Your task to perform on an android device: turn on improve location accuracy Image 0: 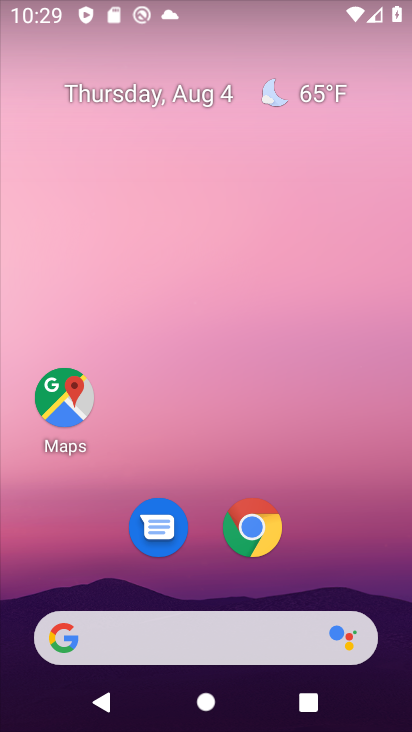
Step 0: click (83, 395)
Your task to perform on an android device: turn on improve location accuracy Image 1: 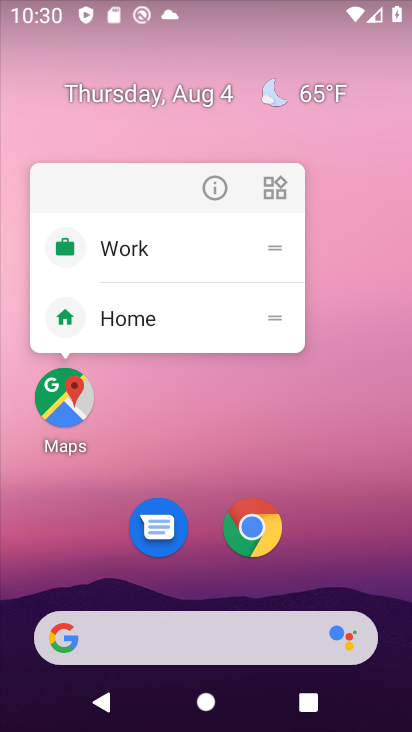
Step 1: click (58, 440)
Your task to perform on an android device: turn on improve location accuracy Image 2: 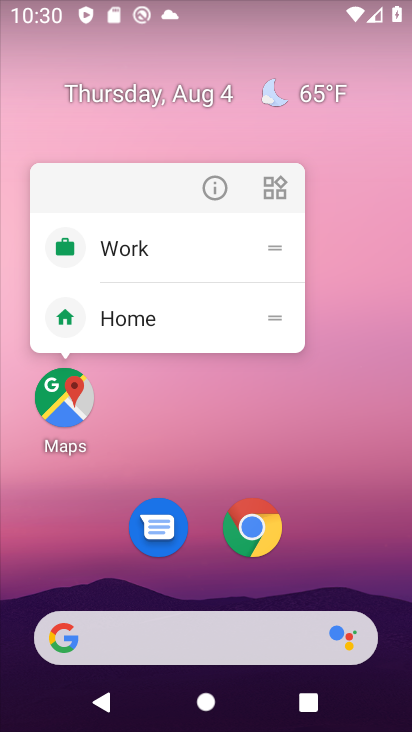
Step 2: click (83, 412)
Your task to perform on an android device: turn on improve location accuracy Image 3: 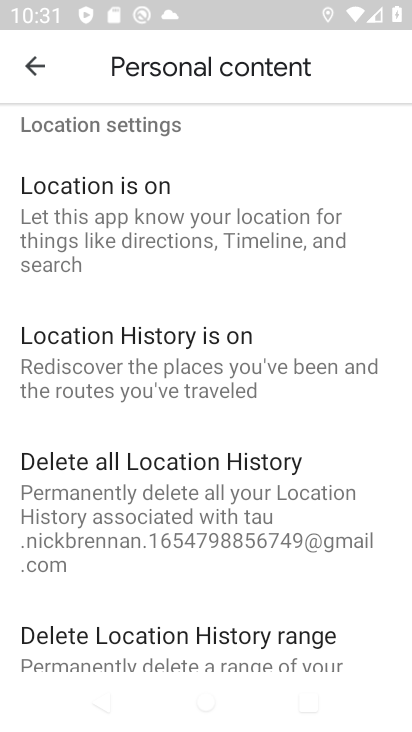
Step 3: drag from (221, 197) to (192, 723)
Your task to perform on an android device: turn on improve location accuracy Image 4: 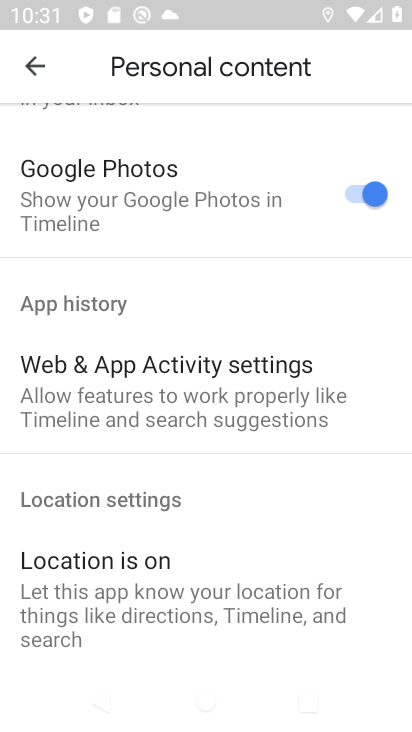
Step 4: drag from (175, 275) to (206, 709)
Your task to perform on an android device: turn on improve location accuracy Image 5: 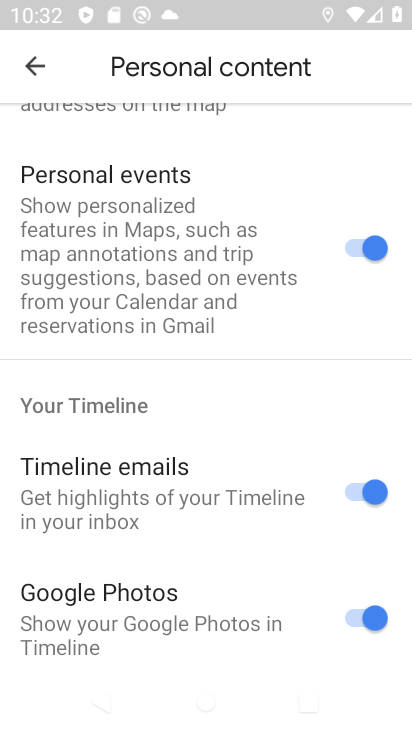
Step 5: drag from (240, 239) to (191, 655)
Your task to perform on an android device: turn on improve location accuracy Image 6: 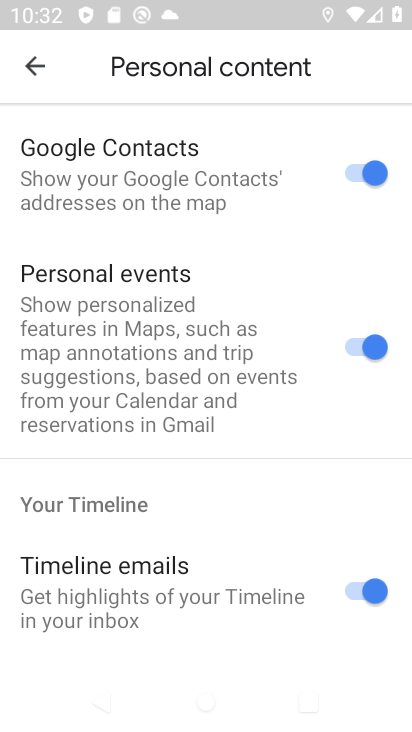
Step 6: drag from (242, 146) to (229, 702)
Your task to perform on an android device: turn on improve location accuracy Image 7: 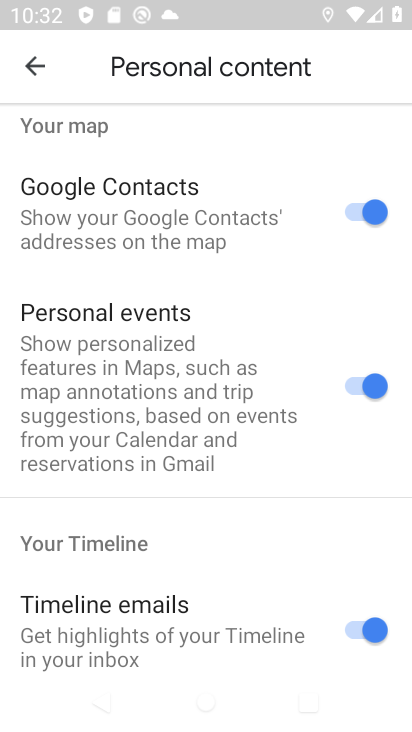
Step 7: drag from (165, 661) to (180, 140)
Your task to perform on an android device: turn on improve location accuracy Image 8: 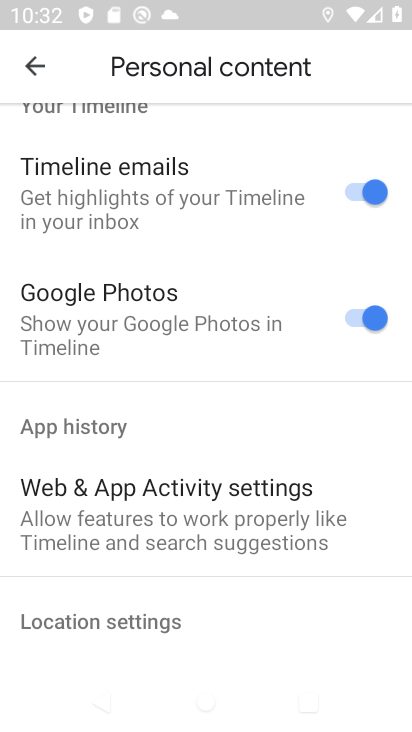
Step 8: drag from (219, 610) to (274, 145)
Your task to perform on an android device: turn on improve location accuracy Image 9: 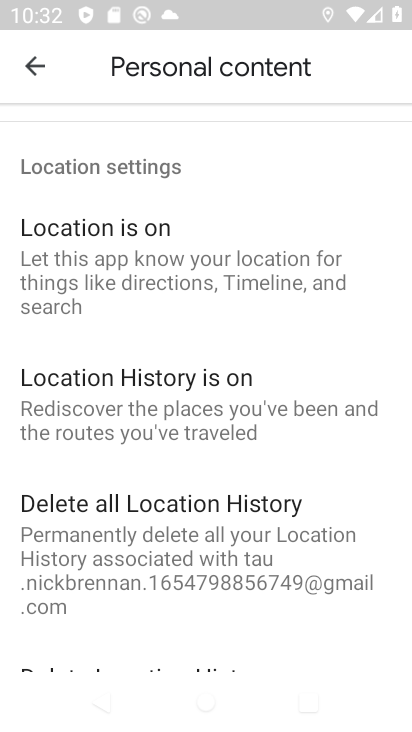
Step 9: click (209, 248)
Your task to perform on an android device: turn on improve location accuracy Image 10: 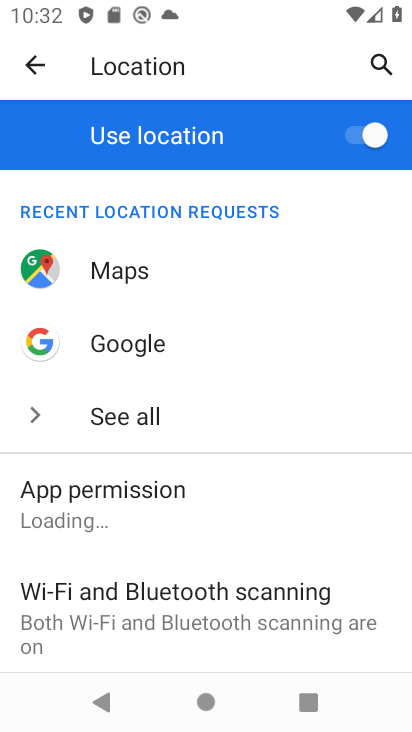
Step 10: drag from (216, 567) to (280, 171)
Your task to perform on an android device: turn on improve location accuracy Image 11: 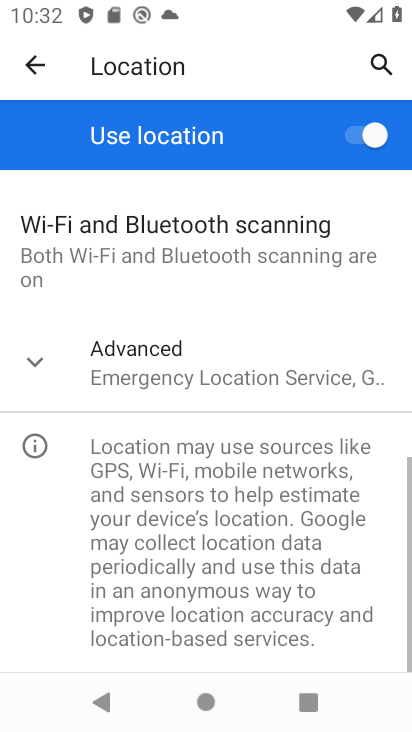
Step 11: click (242, 373)
Your task to perform on an android device: turn on improve location accuracy Image 12: 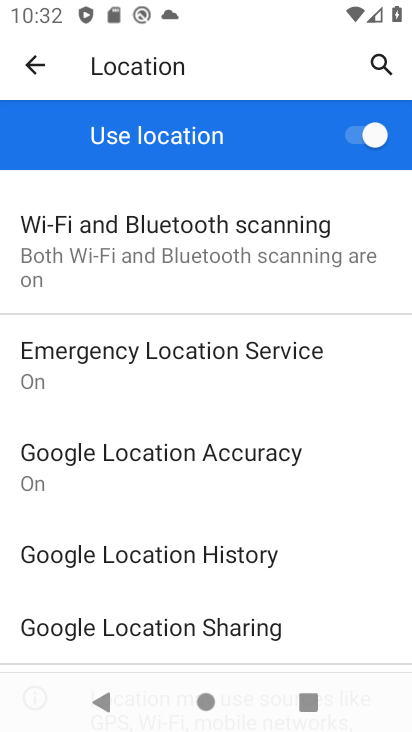
Step 12: click (242, 477)
Your task to perform on an android device: turn on improve location accuracy Image 13: 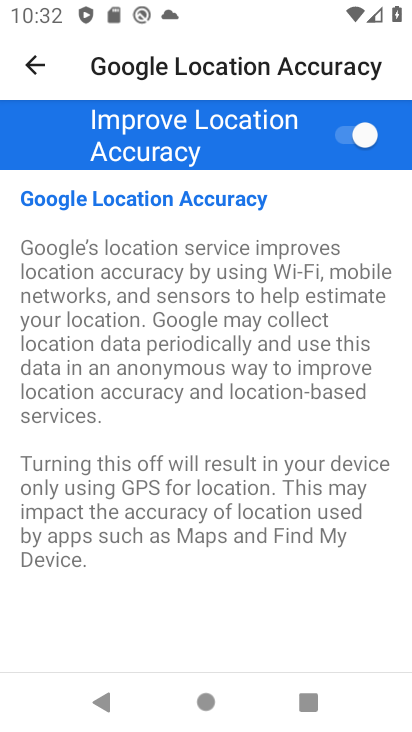
Step 13: task complete